Your task to perform on an android device: Turn off the flashlight Image 0: 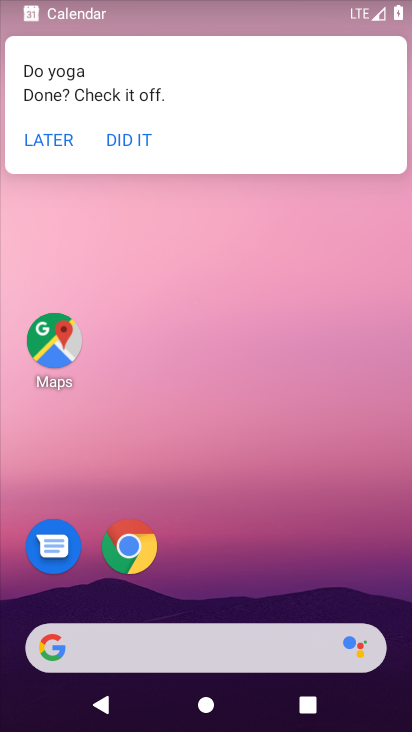
Step 0: click (192, 447)
Your task to perform on an android device: Turn off the flashlight Image 1: 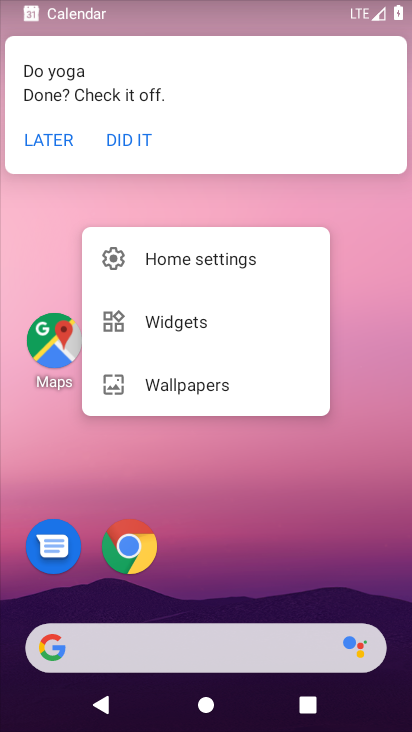
Step 1: click (52, 142)
Your task to perform on an android device: Turn off the flashlight Image 2: 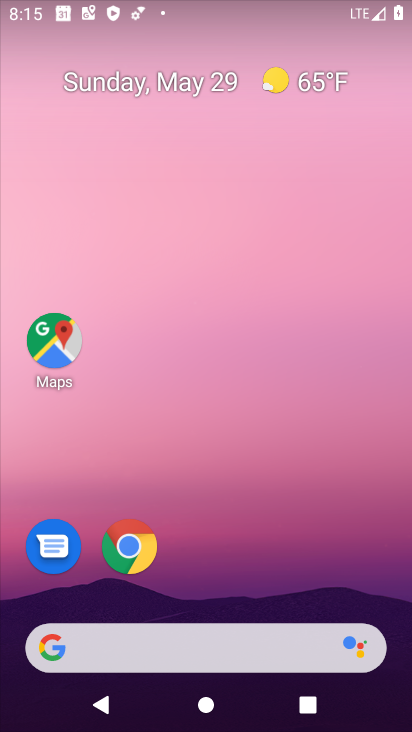
Step 2: drag from (270, 11) to (273, 491)
Your task to perform on an android device: Turn off the flashlight Image 3: 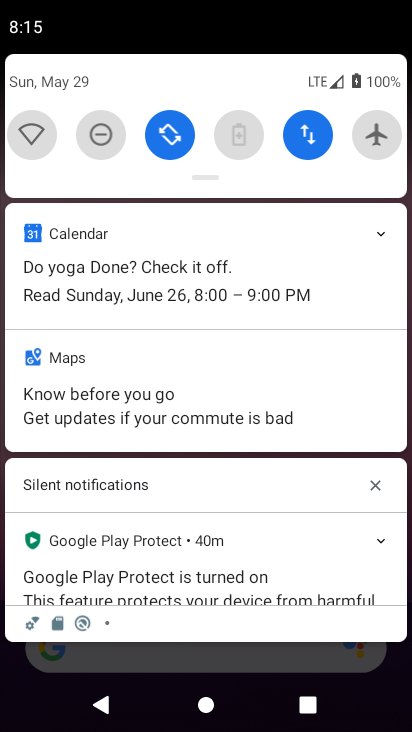
Step 3: drag from (329, 158) to (336, 580)
Your task to perform on an android device: Turn off the flashlight Image 4: 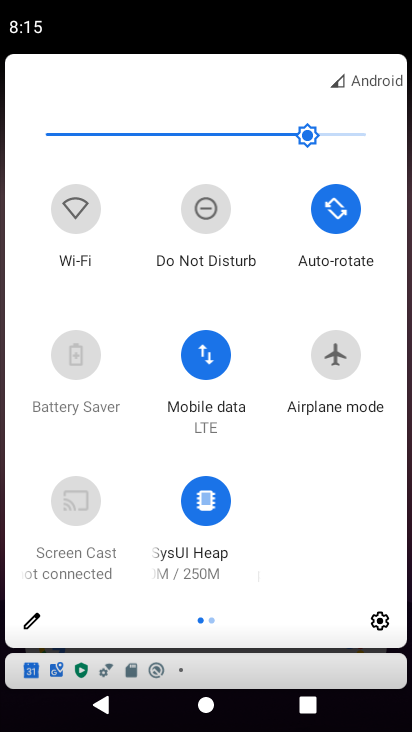
Step 4: click (30, 625)
Your task to perform on an android device: Turn off the flashlight Image 5: 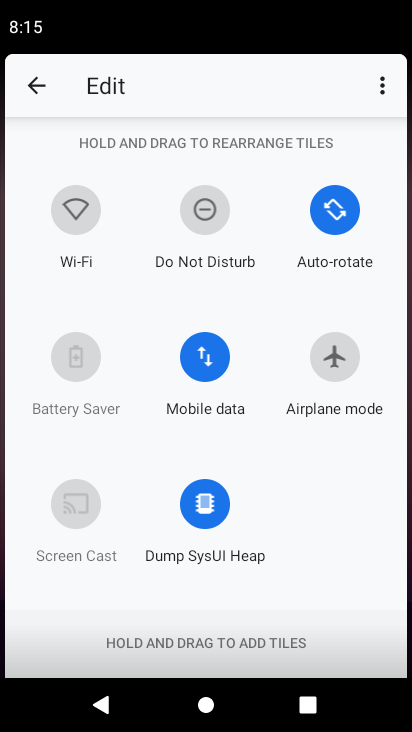
Step 5: task complete